Your task to perform on an android device: Open internet settings Image 0: 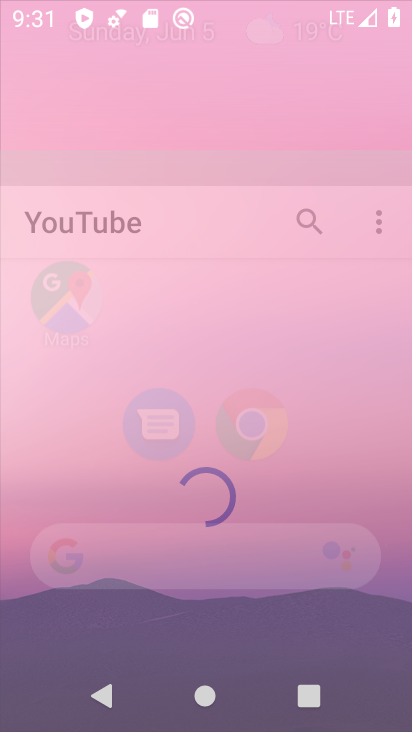
Step 0: click (172, 171)
Your task to perform on an android device: Open internet settings Image 1: 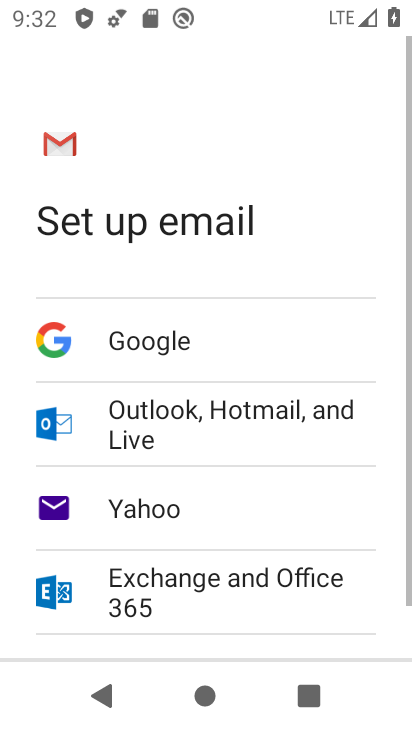
Step 1: press home button
Your task to perform on an android device: Open internet settings Image 2: 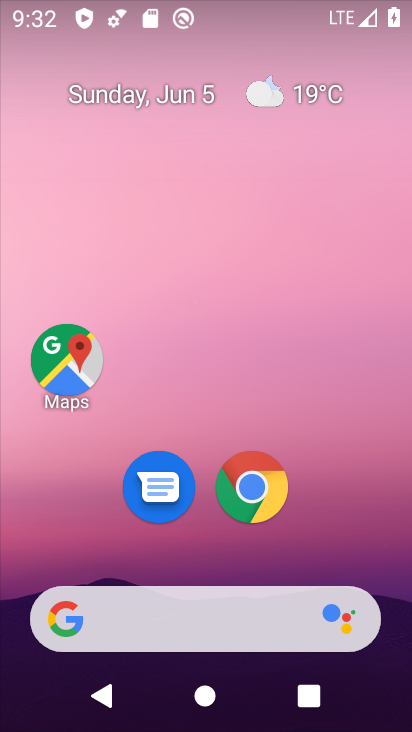
Step 2: drag from (56, 573) to (128, 199)
Your task to perform on an android device: Open internet settings Image 3: 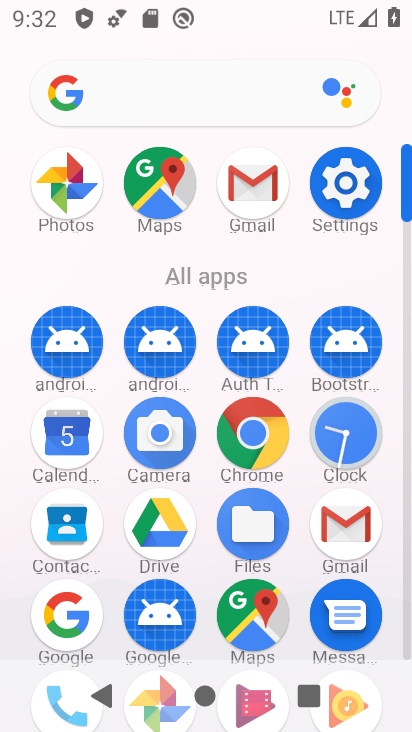
Step 3: drag from (196, 630) to (275, 274)
Your task to perform on an android device: Open internet settings Image 4: 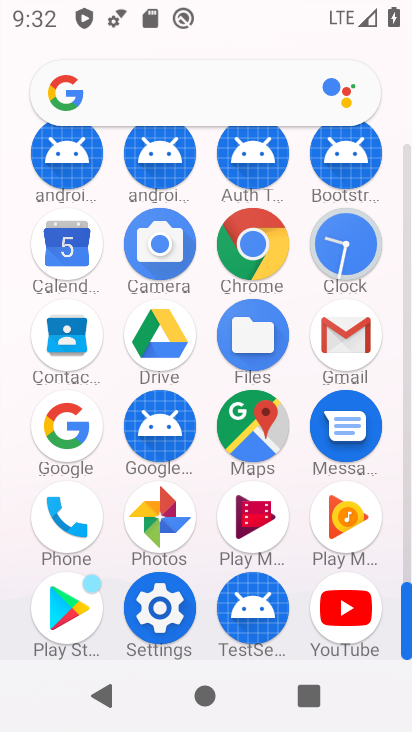
Step 4: click (172, 619)
Your task to perform on an android device: Open internet settings Image 5: 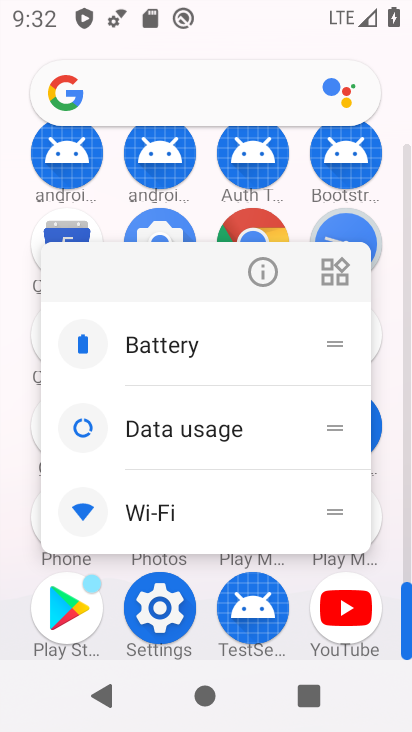
Step 5: click (141, 624)
Your task to perform on an android device: Open internet settings Image 6: 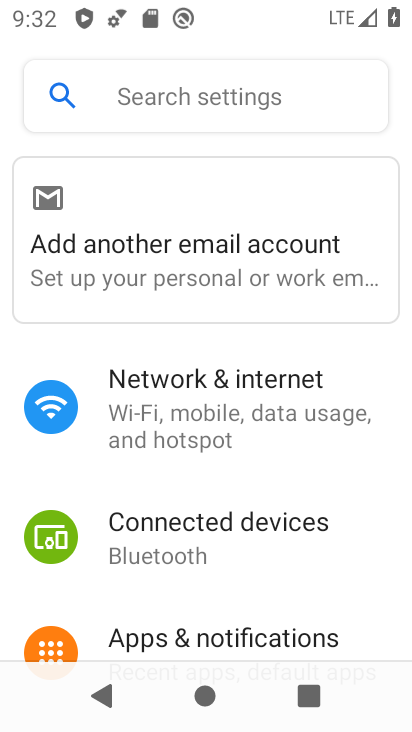
Step 6: click (234, 425)
Your task to perform on an android device: Open internet settings Image 7: 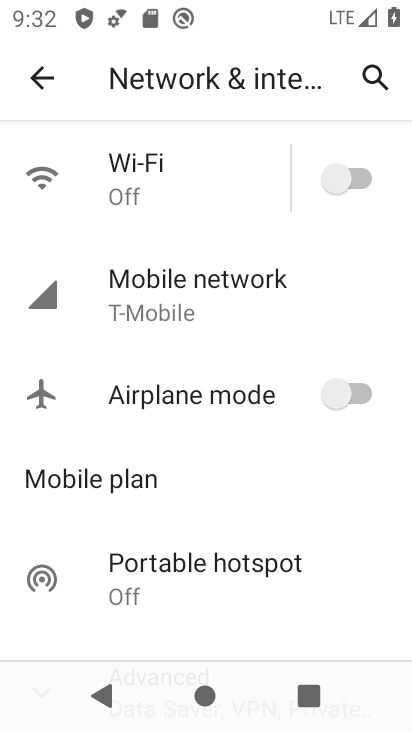
Step 7: click (221, 312)
Your task to perform on an android device: Open internet settings Image 8: 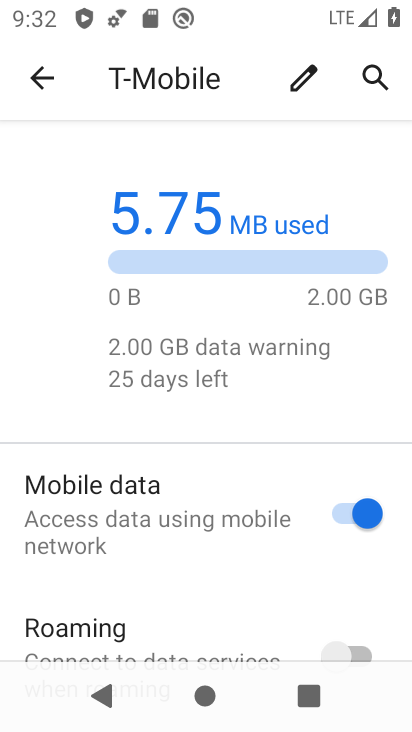
Step 8: task complete